Your task to perform on an android device: empty trash in the gmail app Image 0: 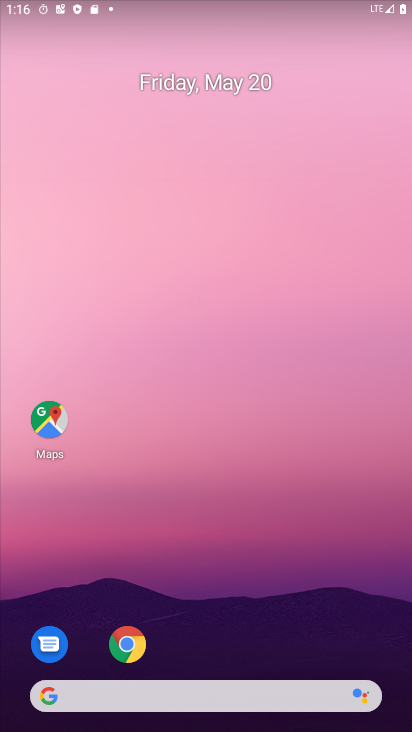
Step 0: drag from (292, 567) to (281, 15)
Your task to perform on an android device: empty trash in the gmail app Image 1: 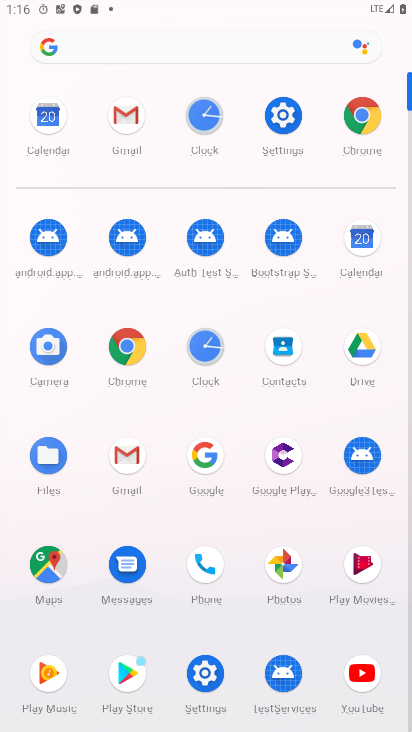
Step 1: click (132, 112)
Your task to perform on an android device: empty trash in the gmail app Image 2: 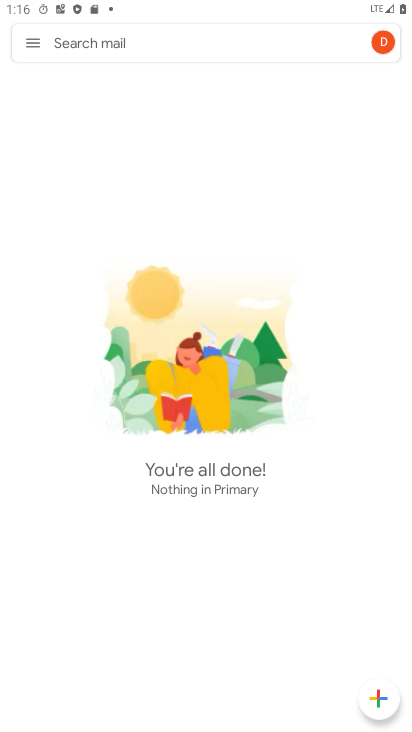
Step 2: click (32, 37)
Your task to perform on an android device: empty trash in the gmail app Image 3: 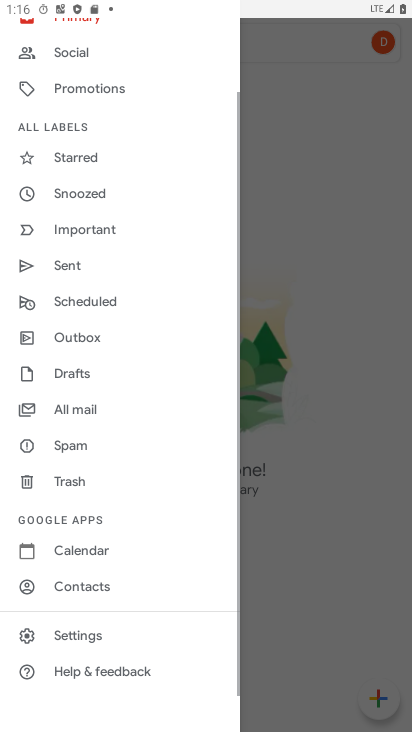
Step 3: drag from (104, 141) to (40, 597)
Your task to perform on an android device: empty trash in the gmail app Image 4: 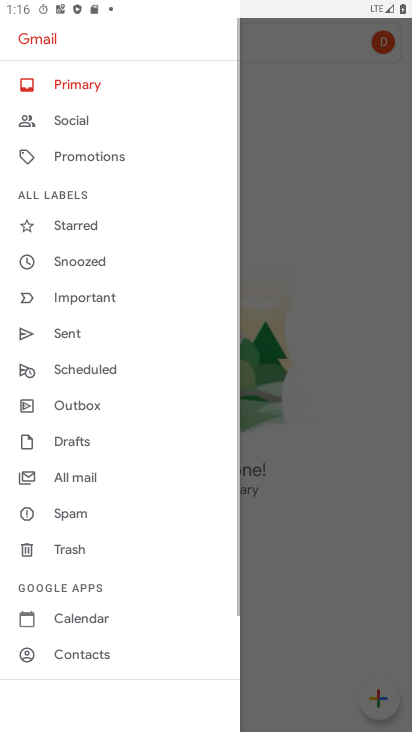
Step 4: click (69, 551)
Your task to perform on an android device: empty trash in the gmail app Image 5: 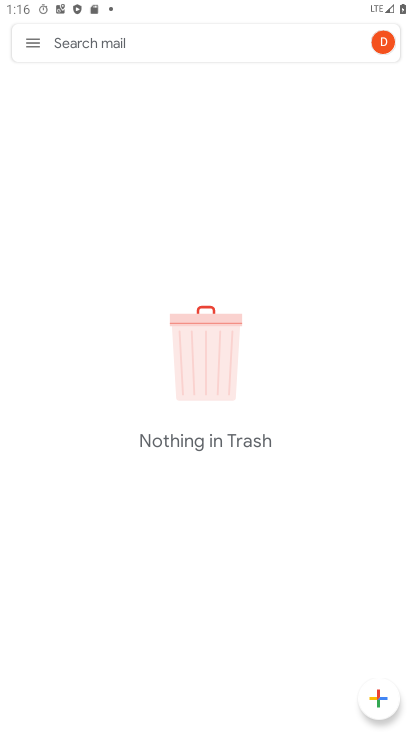
Step 5: task complete